Your task to perform on an android device: Search for pizza restaurants on Maps Image 0: 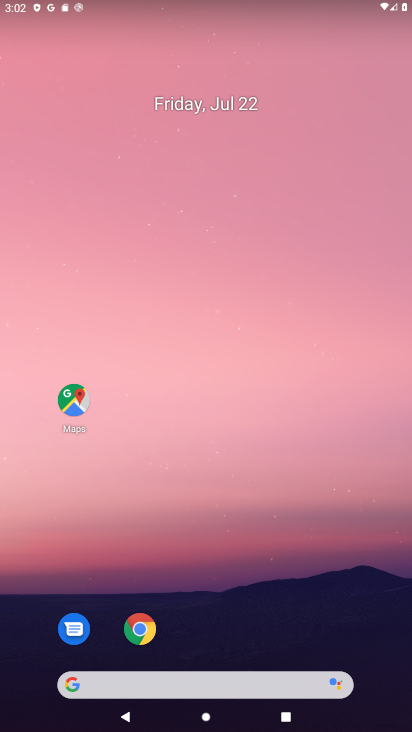
Step 0: click (69, 403)
Your task to perform on an android device: Search for pizza restaurants on Maps Image 1: 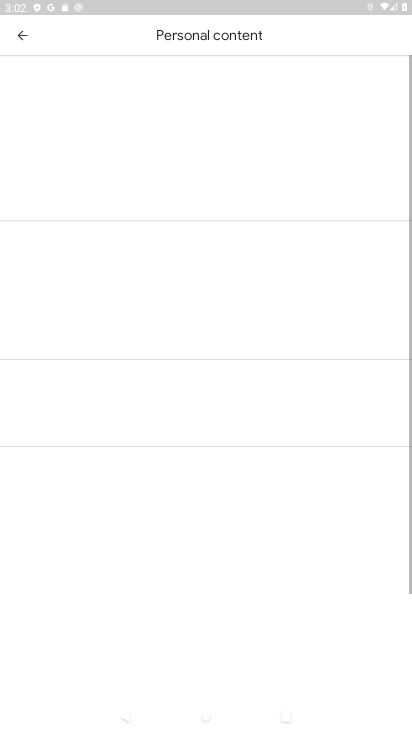
Step 1: click (19, 33)
Your task to perform on an android device: Search for pizza restaurants on Maps Image 2: 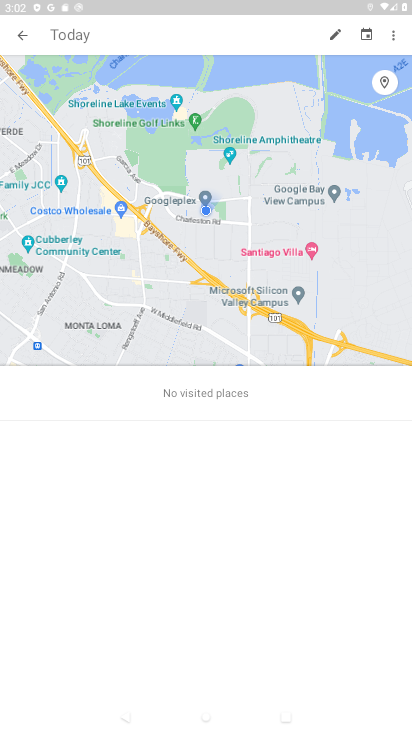
Step 2: click (24, 39)
Your task to perform on an android device: Search for pizza restaurants on Maps Image 3: 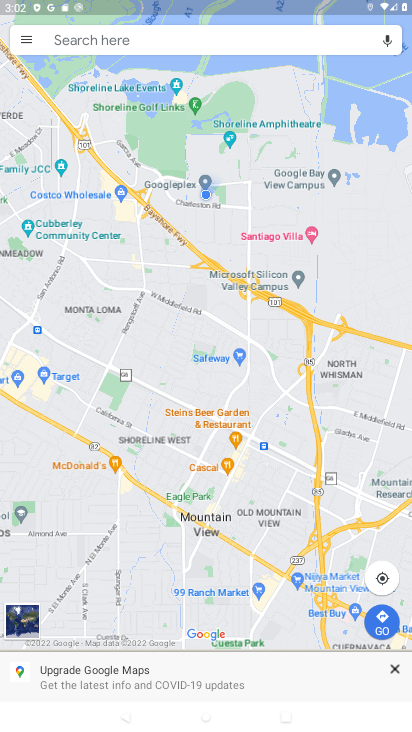
Step 3: click (173, 31)
Your task to perform on an android device: Search for pizza restaurants on Maps Image 4: 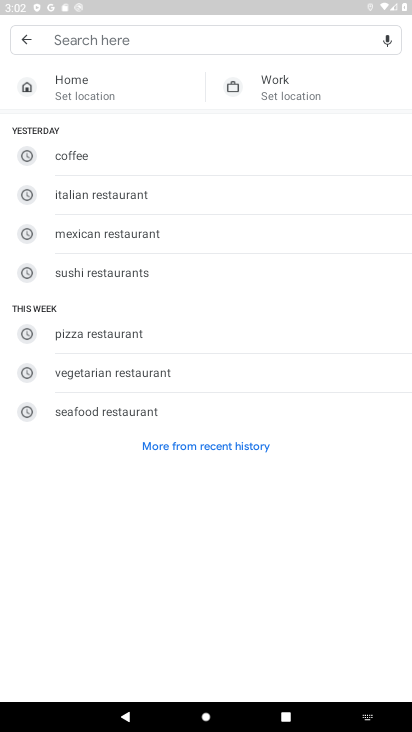
Step 4: click (105, 332)
Your task to perform on an android device: Search for pizza restaurants on Maps Image 5: 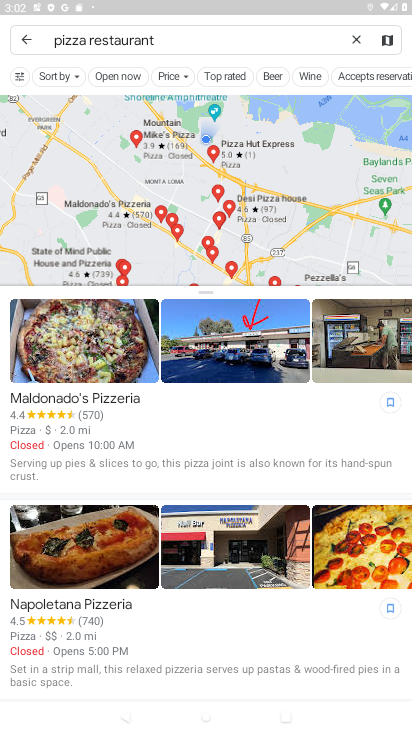
Step 5: task complete